Your task to perform on an android device: open a new tab in the chrome app Image 0: 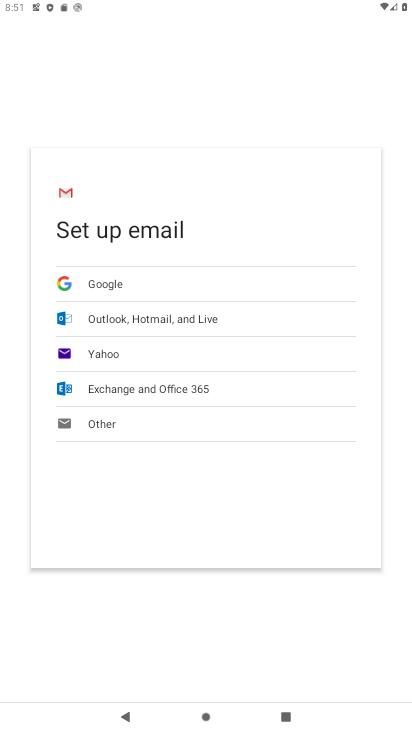
Step 0: press home button
Your task to perform on an android device: open a new tab in the chrome app Image 1: 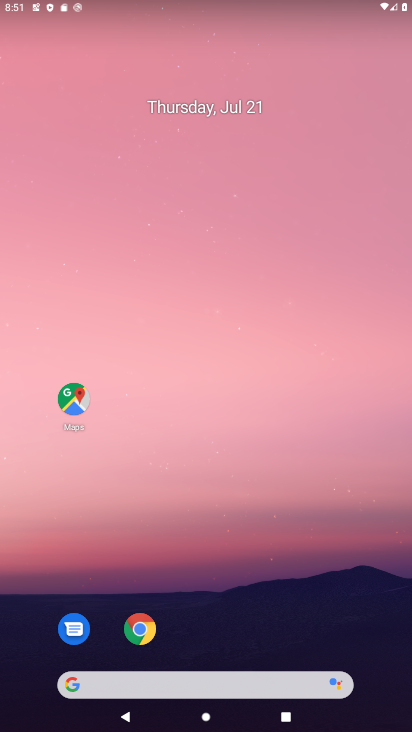
Step 1: click (121, 630)
Your task to perform on an android device: open a new tab in the chrome app Image 2: 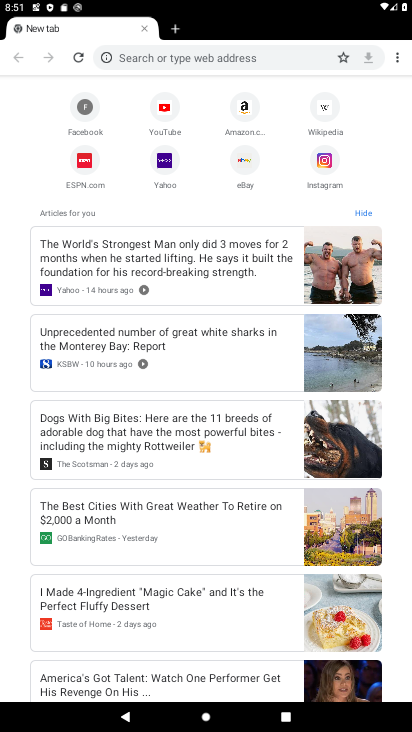
Step 2: click (179, 37)
Your task to perform on an android device: open a new tab in the chrome app Image 3: 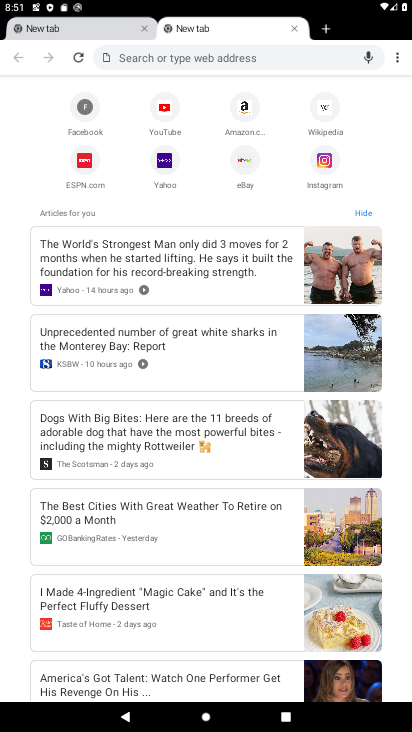
Step 3: task complete